Your task to perform on an android device: Open display settings Image 0: 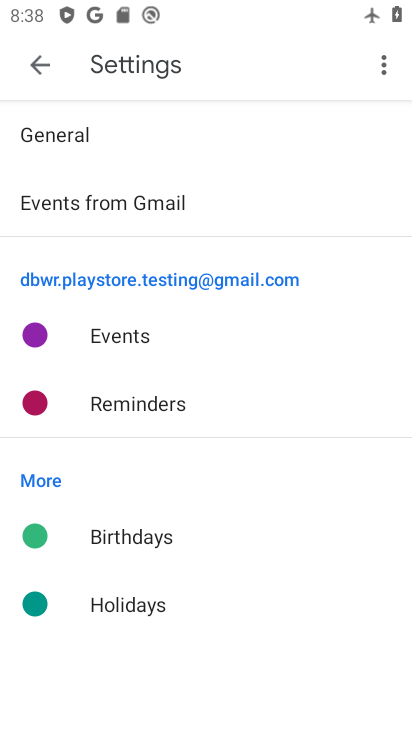
Step 0: press home button
Your task to perform on an android device: Open display settings Image 1: 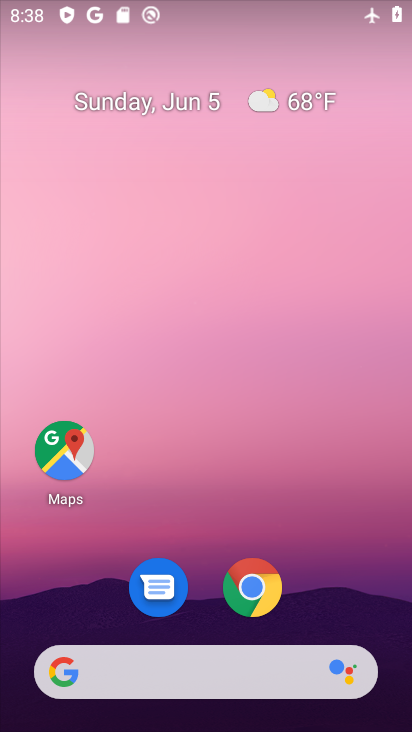
Step 1: click (333, 608)
Your task to perform on an android device: Open display settings Image 2: 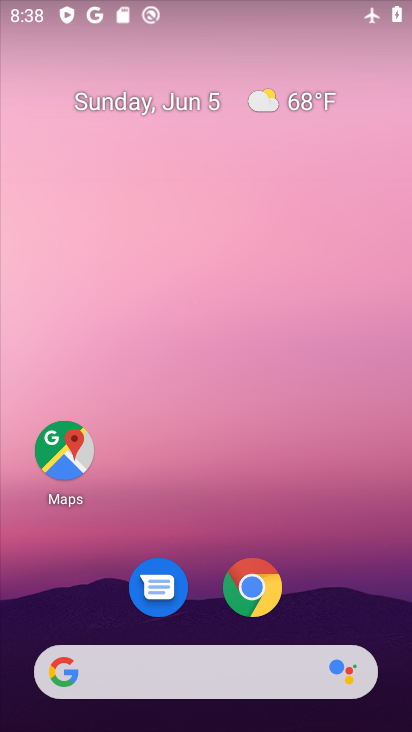
Step 2: drag from (321, 611) to (210, 0)
Your task to perform on an android device: Open display settings Image 3: 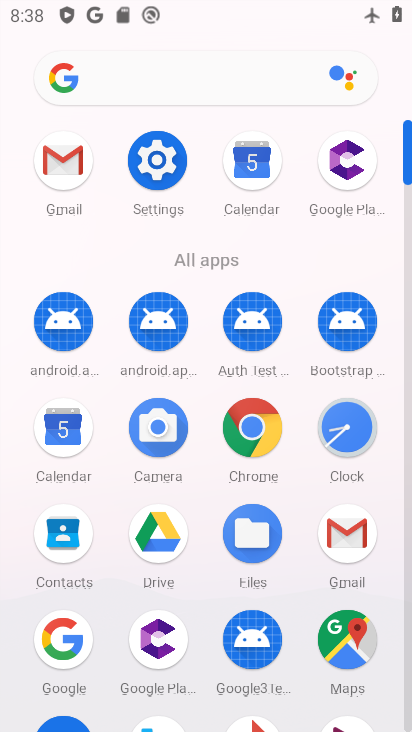
Step 3: click (170, 166)
Your task to perform on an android device: Open display settings Image 4: 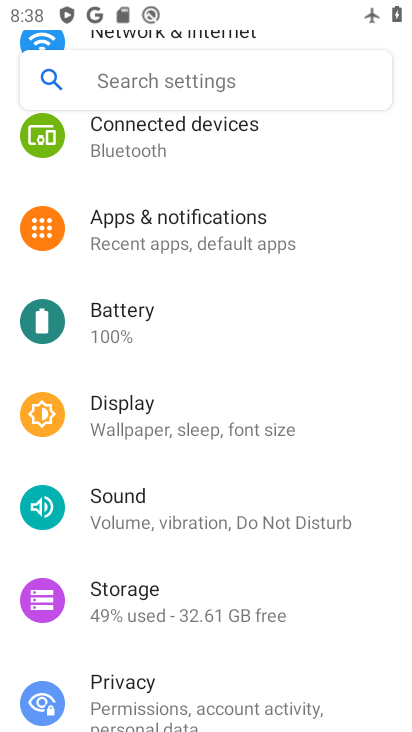
Step 4: drag from (171, 151) to (243, 503)
Your task to perform on an android device: Open display settings Image 5: 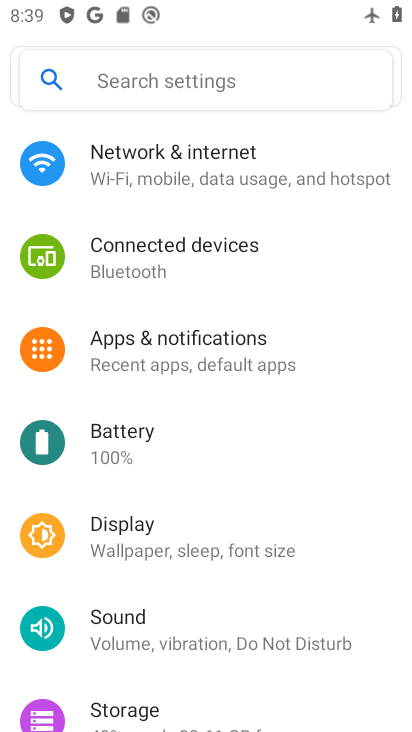
Step 5: click (217, 540)
Your task to perform on an android device: Open display settings Image 6: 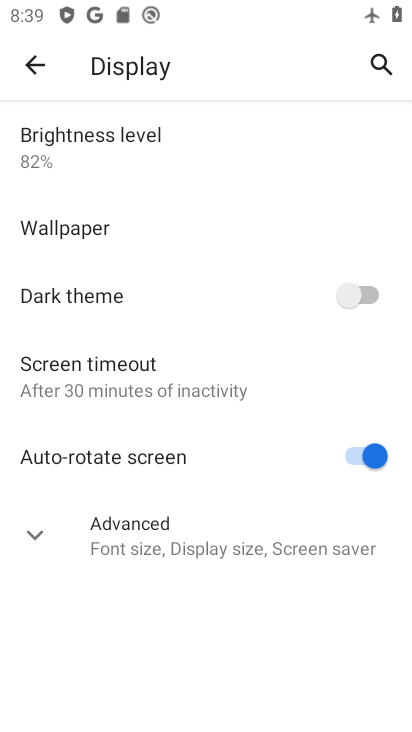
Step 6: click (253, 526)
Your task to perform on an android device: Open display settings Image 7: 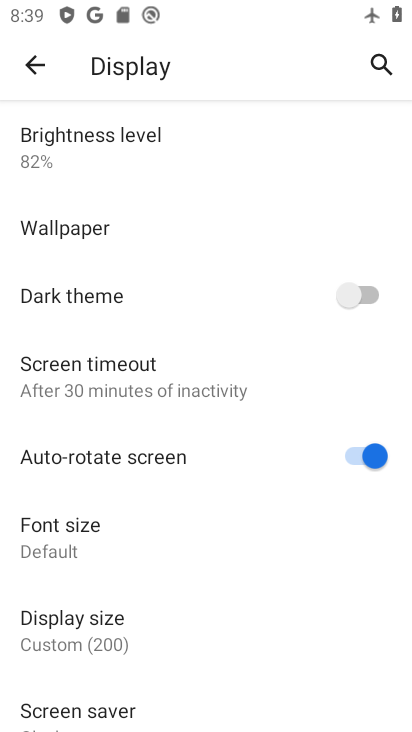
Step 7: task complete